Your task to perform on an android device: Open the calendar app, open the side menu, and click the "Day" option Image 0: 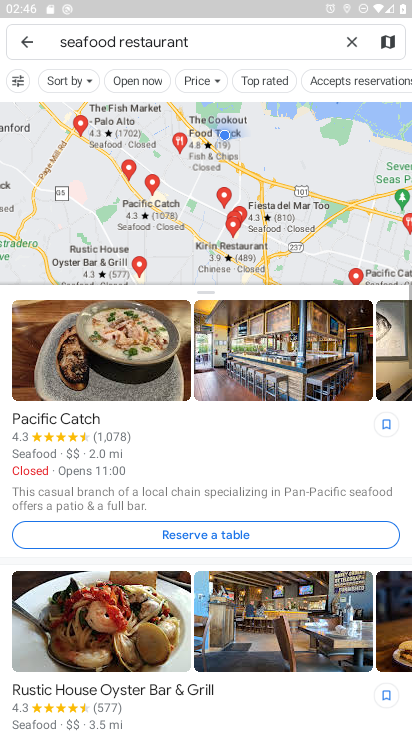
Step 0: press home button
Your task to perform on an android device: Open the calendar app, open the side menu, and click the "Day" option Image 1: 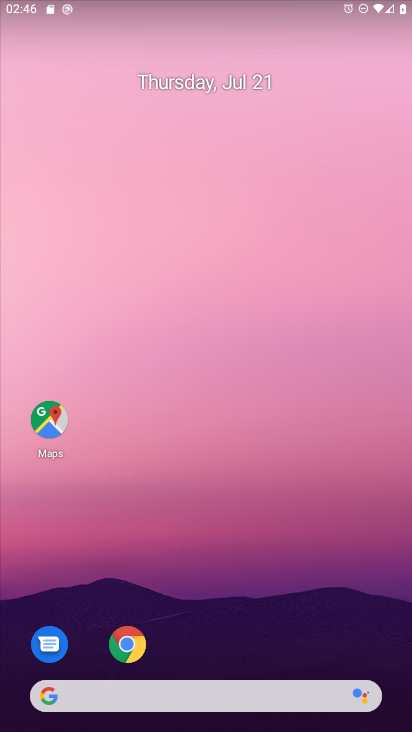
Step 1: drag from (209, 656) to (190, 203)
Your task to perform on an android device: Open the calendar app, open the side menu, and click the "Day" option Image 2: 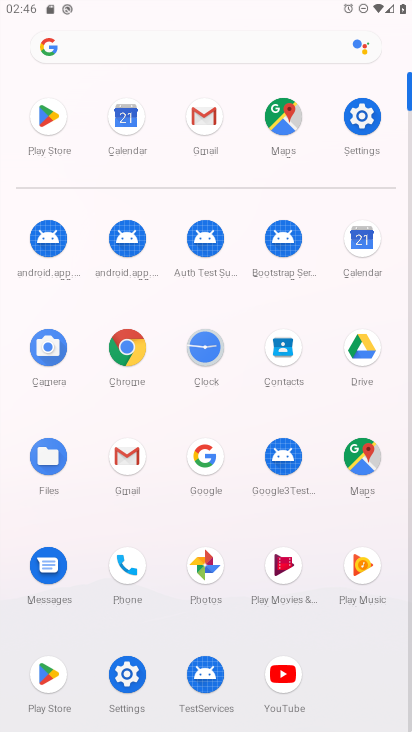
Step 2: click (364, 241)
Your task to perform on an android device: Open the calendar app, open the side menu, and click the "Day" option Image 3: 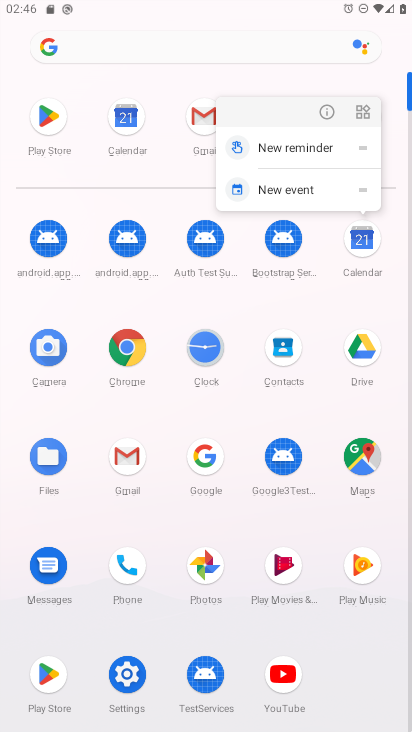
Step 3: click (364, 241)
Your task to perform on an android device: Open the calendar app, open the side menu, and click the "Day" option Image 4: 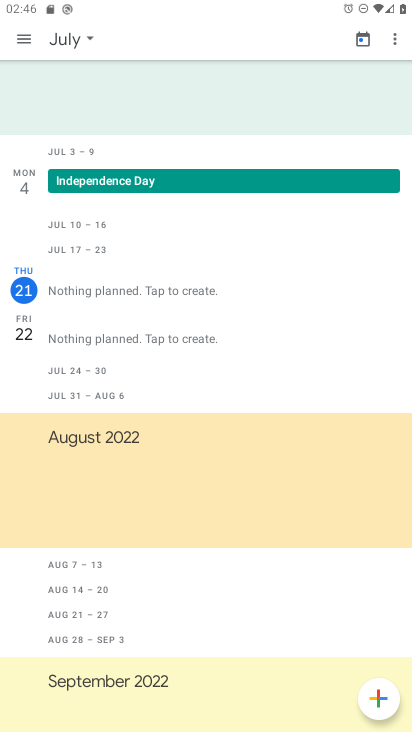
Step 4: click (26, 35)
Your task to perform on an android device: Open the calendar app, open the side menu, and click the "Day" option Image 5: 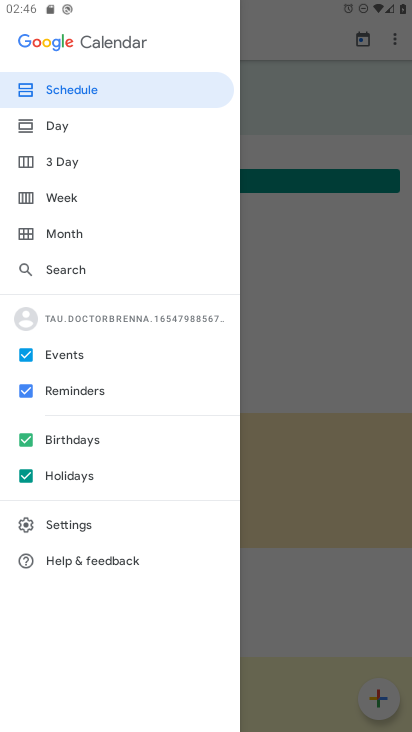
Step 5: click (57, 123)
Your task to perform on an android device: Open the calendar app, open the side menu, and click the "Day" option Image 6: 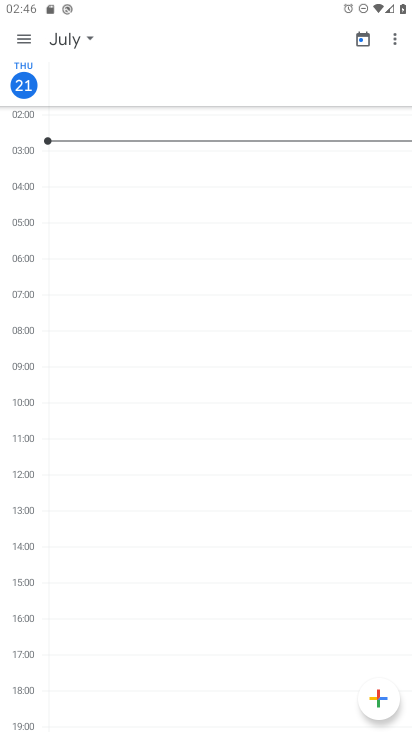
Step 6: task complete